Your task to perform on an android device: turn on data saver in the chrome app Image 0: 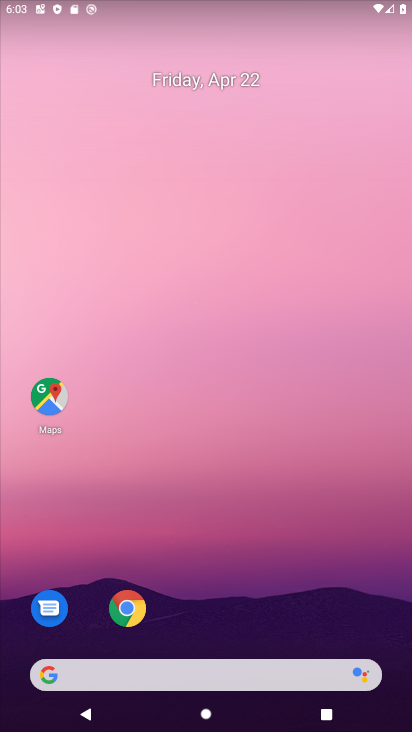
Step 0: click (122, 603)
Your task to perform on an android device: turn on data saver in the chrome app Image 1: 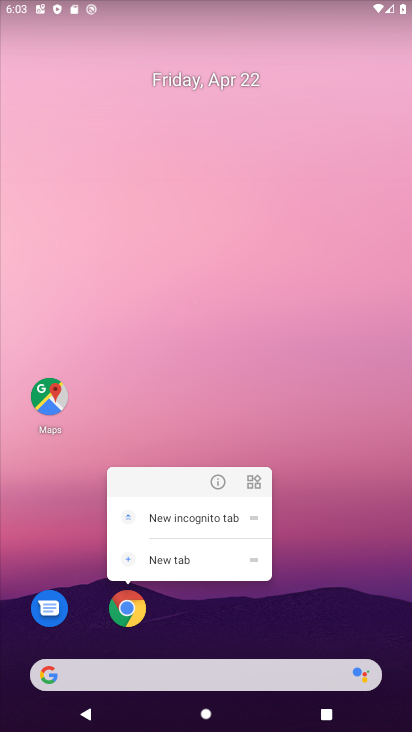
Step 1: click (122, 614)
Your task to perform on an android device: turn on data saver in the chrome app Image 2: 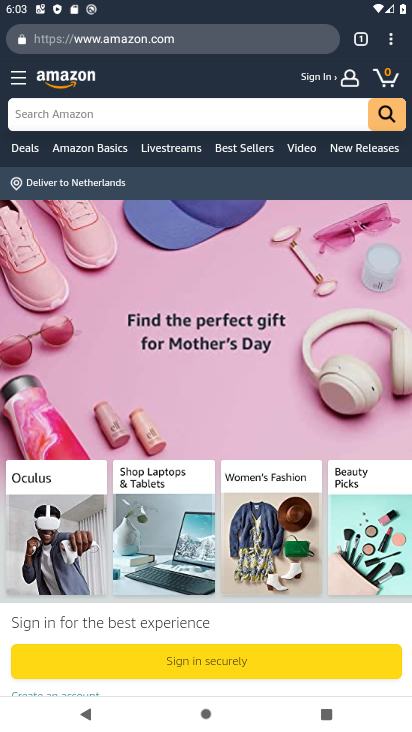
Step 2: click (395, 46)
Your task to perform on an android device: turn on data saver in the chrome app Image 3: 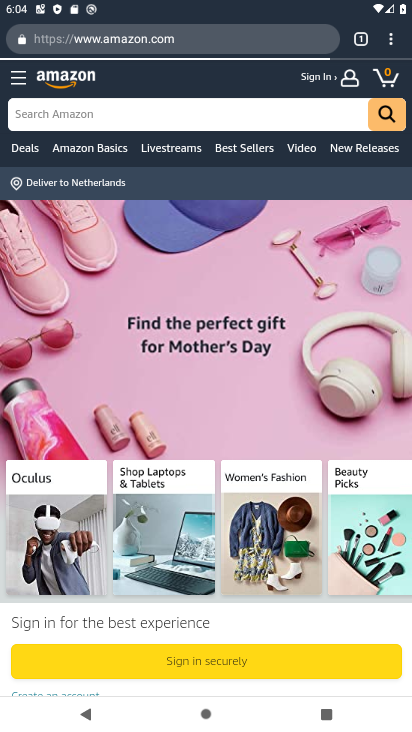
Step 3: click (390, 35)
Your task to perform on an android device: turn on data saver in the chrome app Image 4: 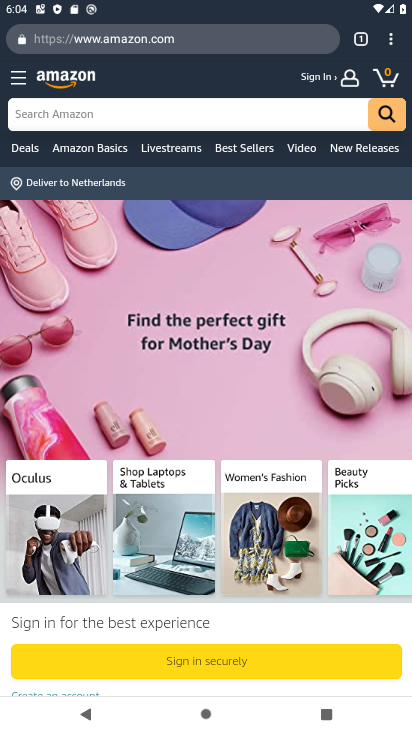
Step 4: click (392, 38)
Your task to perform on an android device: turn on data saver in the chrome app Image 5: 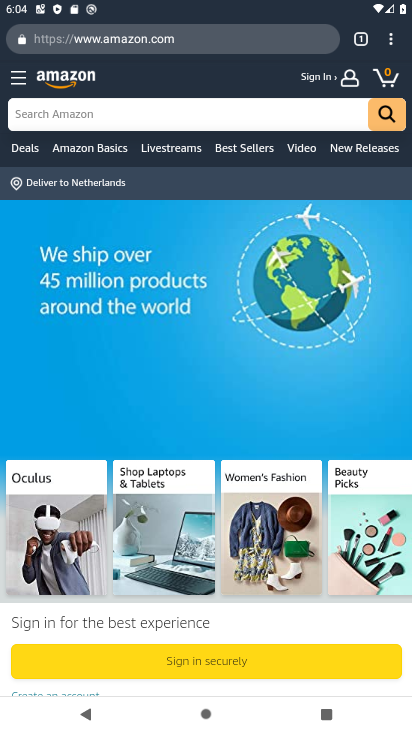
Step 5: click (395, 42)
Your task to perform on an android device: turn on data saver in the chrome app Image 6: 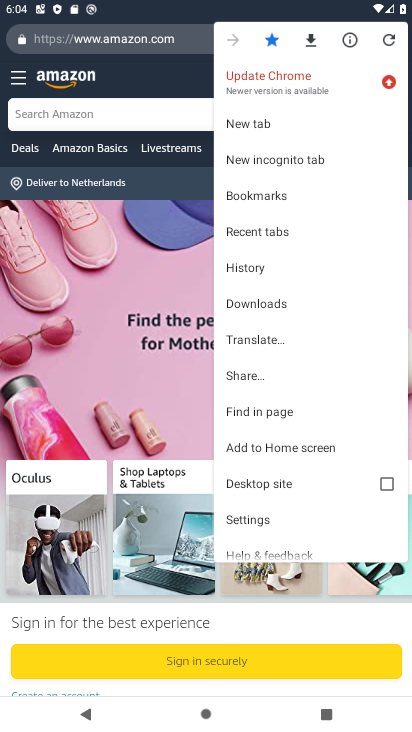
Step 6: click (264, 517)
Your task to perform on an android device: turn on data saver in the chrome app Image 7: 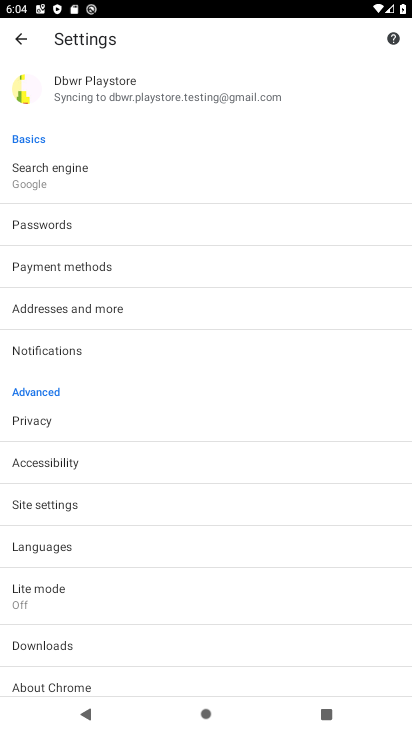
Step 7: click (45, 593)
Your task to perform on an android device: turn on data saver in the chrome app Image 8: 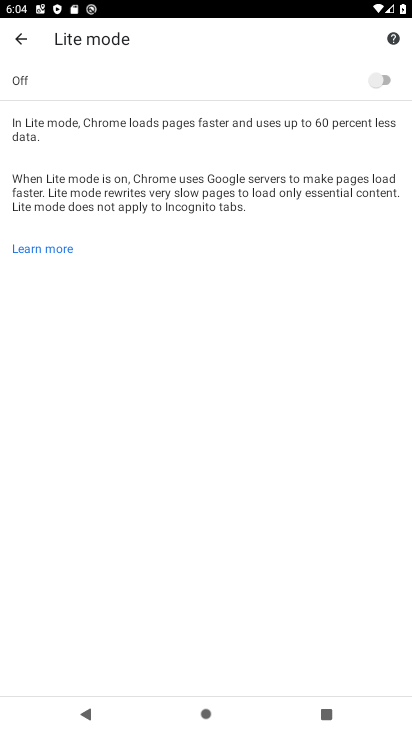
Step 8: click (378, 81)
Your task to perform on an android device: turn on data saver in the chrome app Image 9: 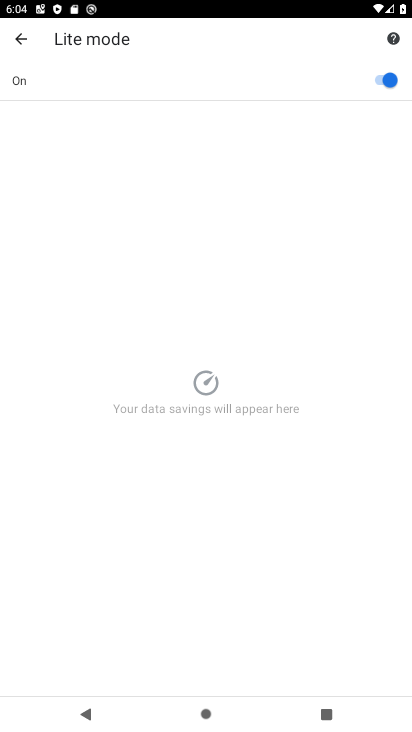
Step 9: task complete